Your task to perform on an android device: Go to battery settings Image 0: 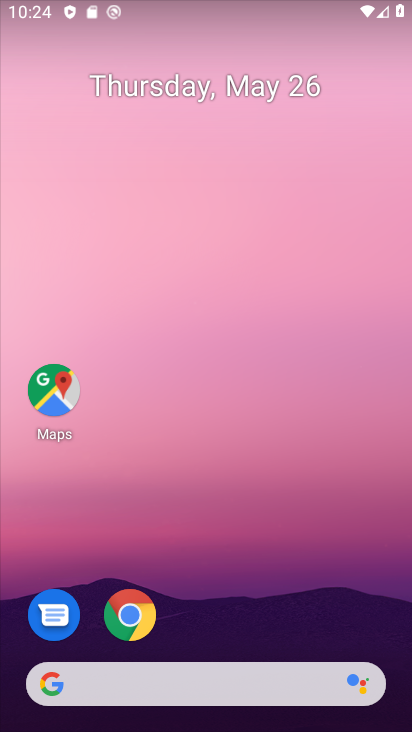
Step 0: drag from (346, 608) to (339, 207)
Your task to perform on an android device: Go to battery settings Image 1: 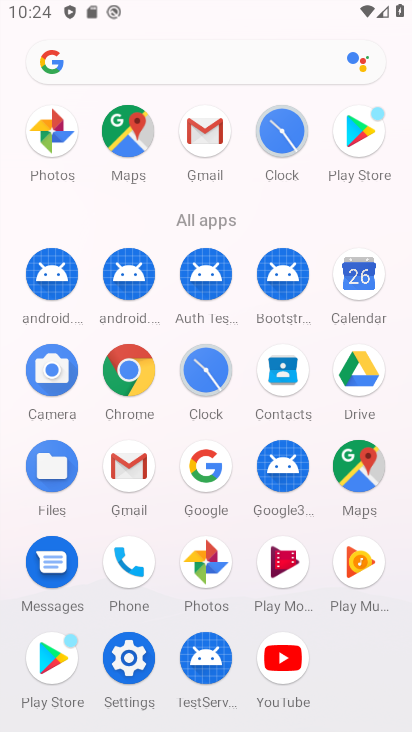
Step 1: click (124, 674)
Your task to perform on an android device: Go to battery settings Image 2: 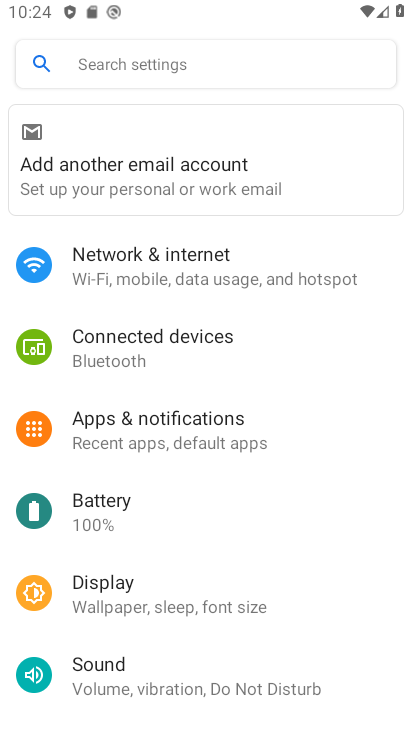
Step 2: click (186, 520)
Your task to perform on an android device: Go to battery settings Image 3: 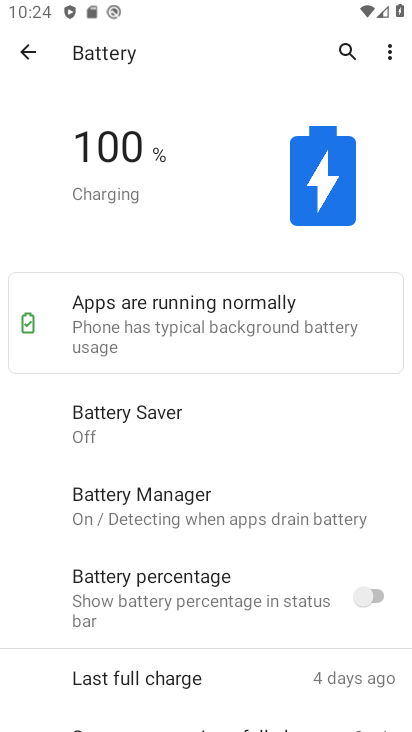
Step 3: task complete